Your task to perform on an android device: Open sound settings Image 0: 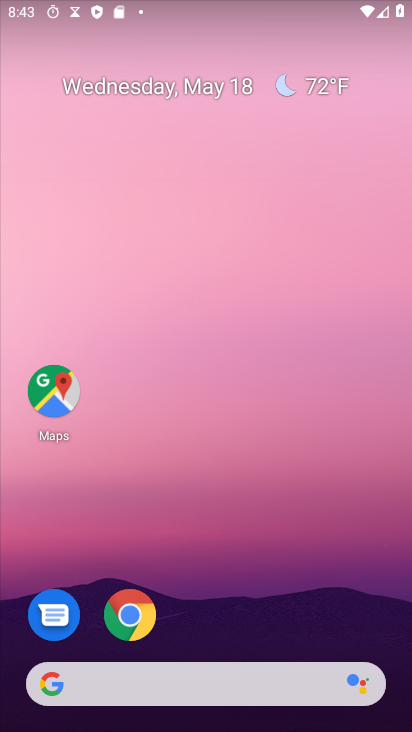
Step 0: drag from (219, 584) to (274, 112)
Your task to perform on an android device: Open sound settings Image 1: 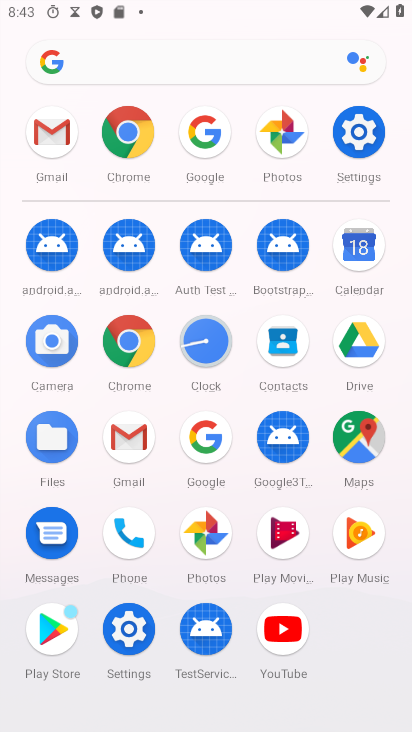
Step 1: click (350, 137)
Your task to perform on an android device: Open sound settings Image 2: 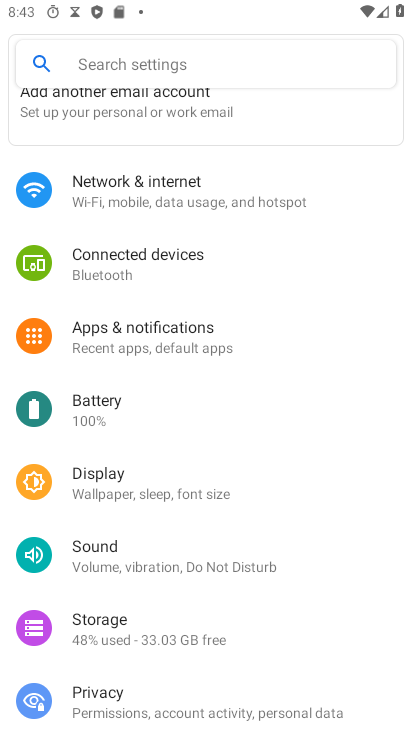
Step 2: click (125, 541)
Your task to perform on an android device: Open sound settings Image 3: 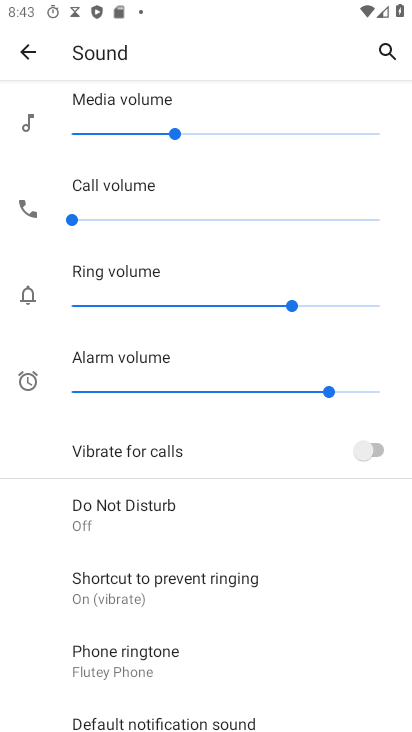
Step 3: task complete